Your task to perform on an android device: check battery use Image 0: 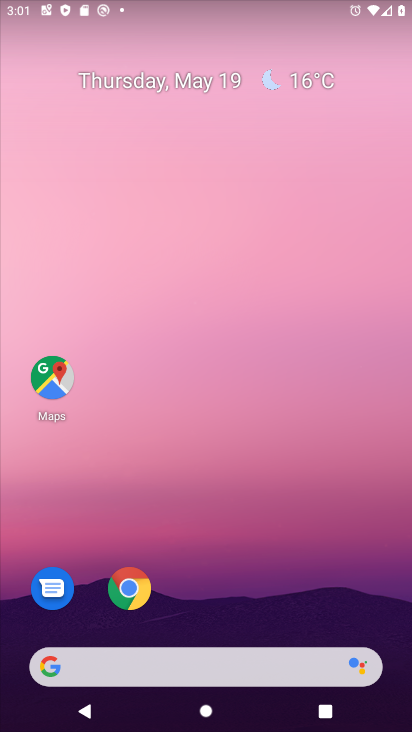
Step 0: drag from (297, 506) to (241, 97)
Your task to perform on an android device: check battery use Image 1: 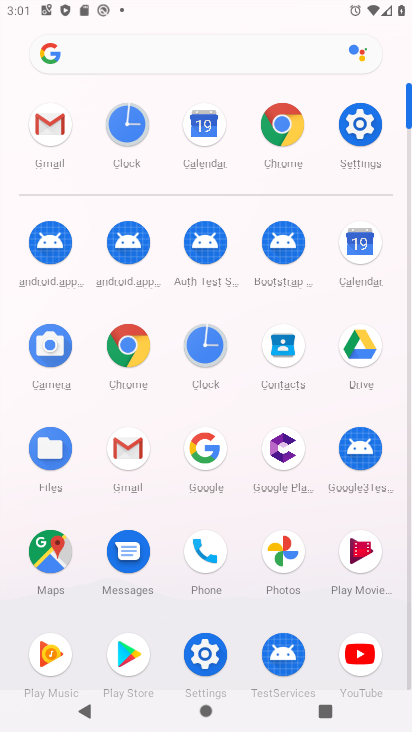
Step 1: click (358, 117)
Your task to perform on an android device: check battery use Image 2: 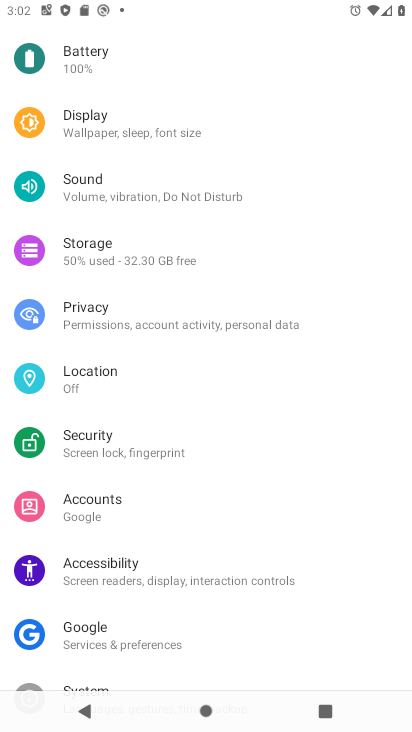
Step 2: click (127, 74)
Your task to perform on an android device: check battery use Image 3: 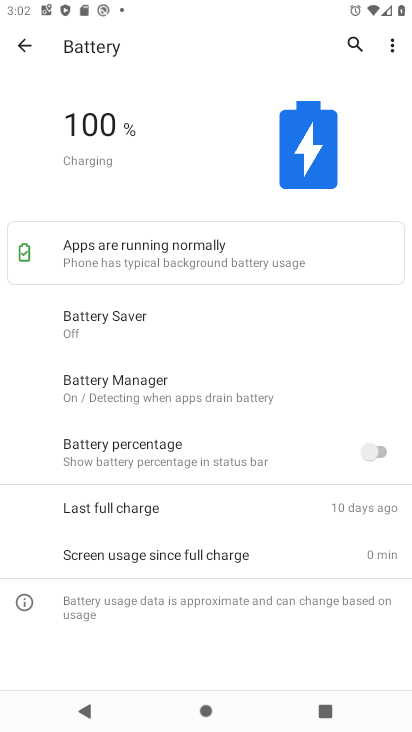
Step 3: task complete